Your task to perform on an android device: Add logitech g903 to the cart on ebay.com, then select checkout. Image 0: 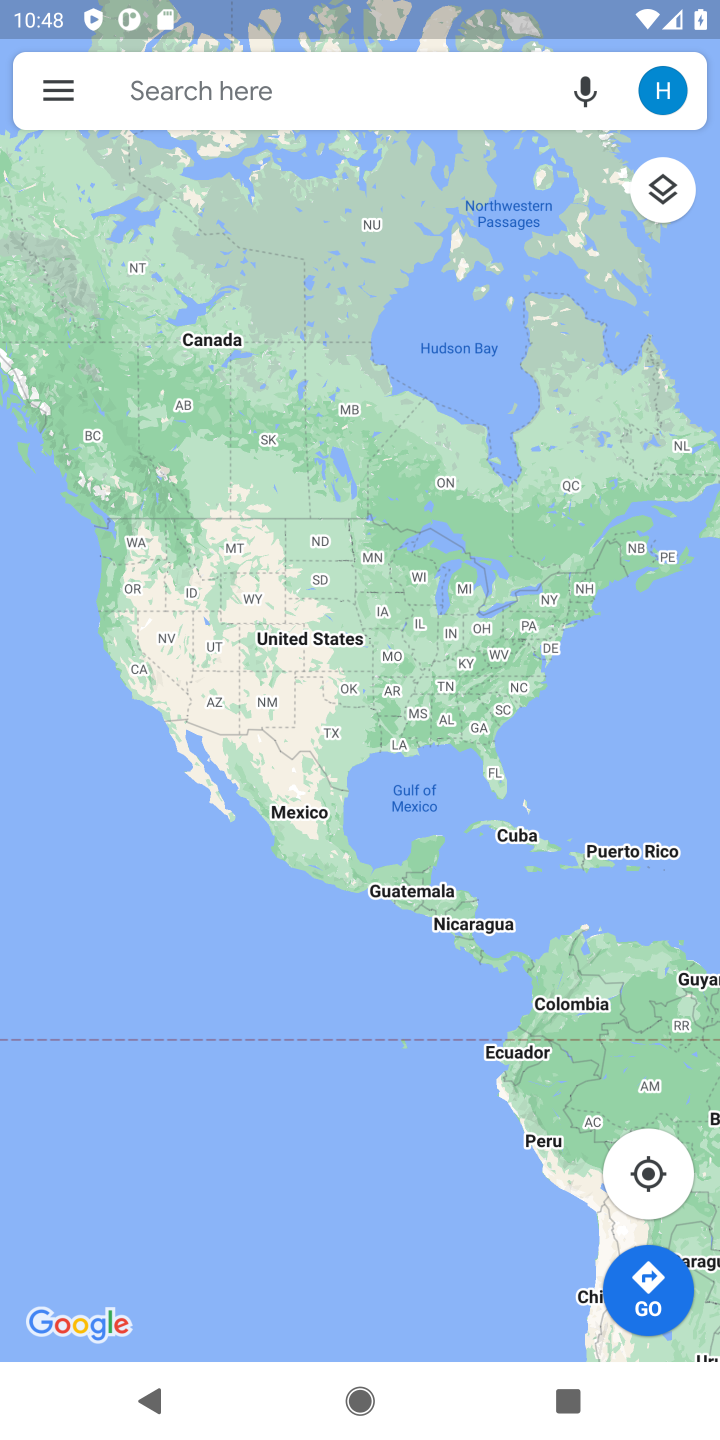
Step 0: press home button
Your task to perform on an android device: Add logitech g903 to the cart on ebay.com, then select checkout. Image 1: 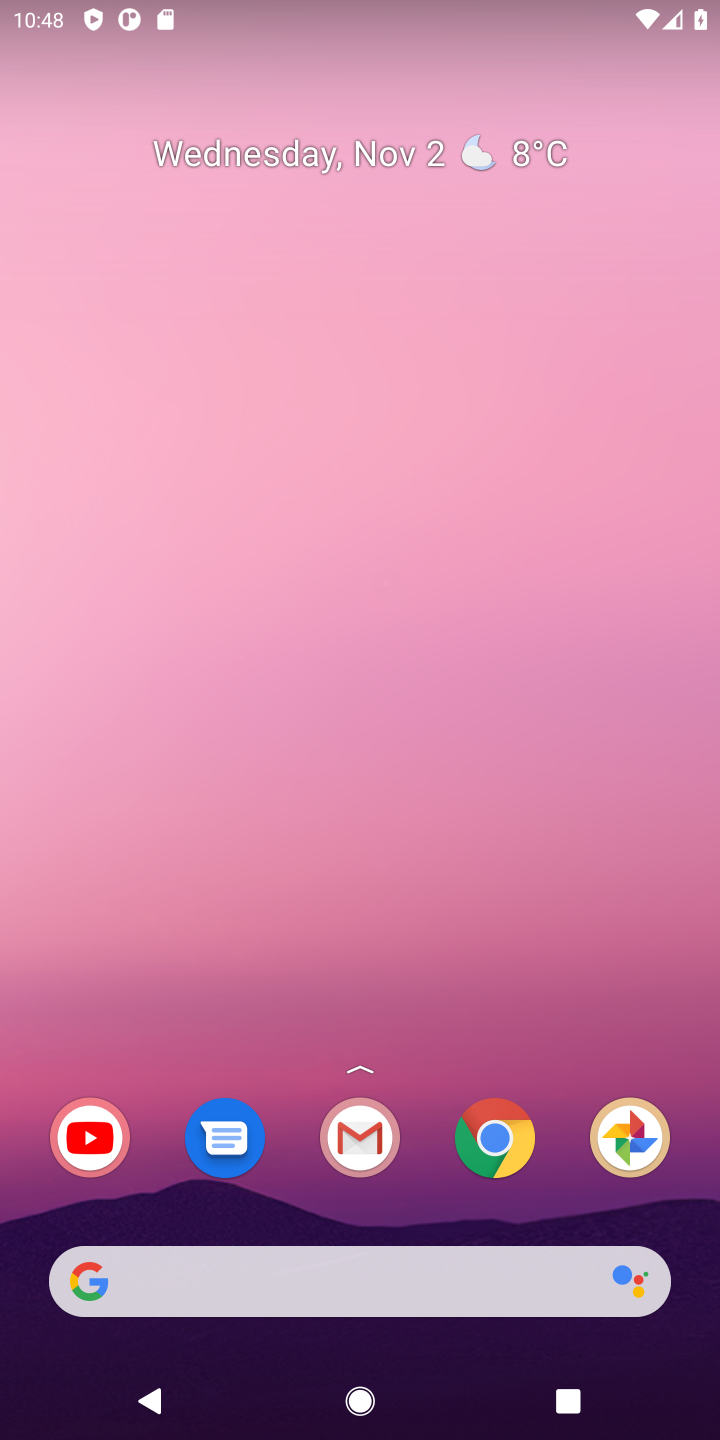
Step 1: click (497, 1153)
Your task to perform on an android device: Add logitech g903 to the cart on ebay.com, then select checkout. Image 2: 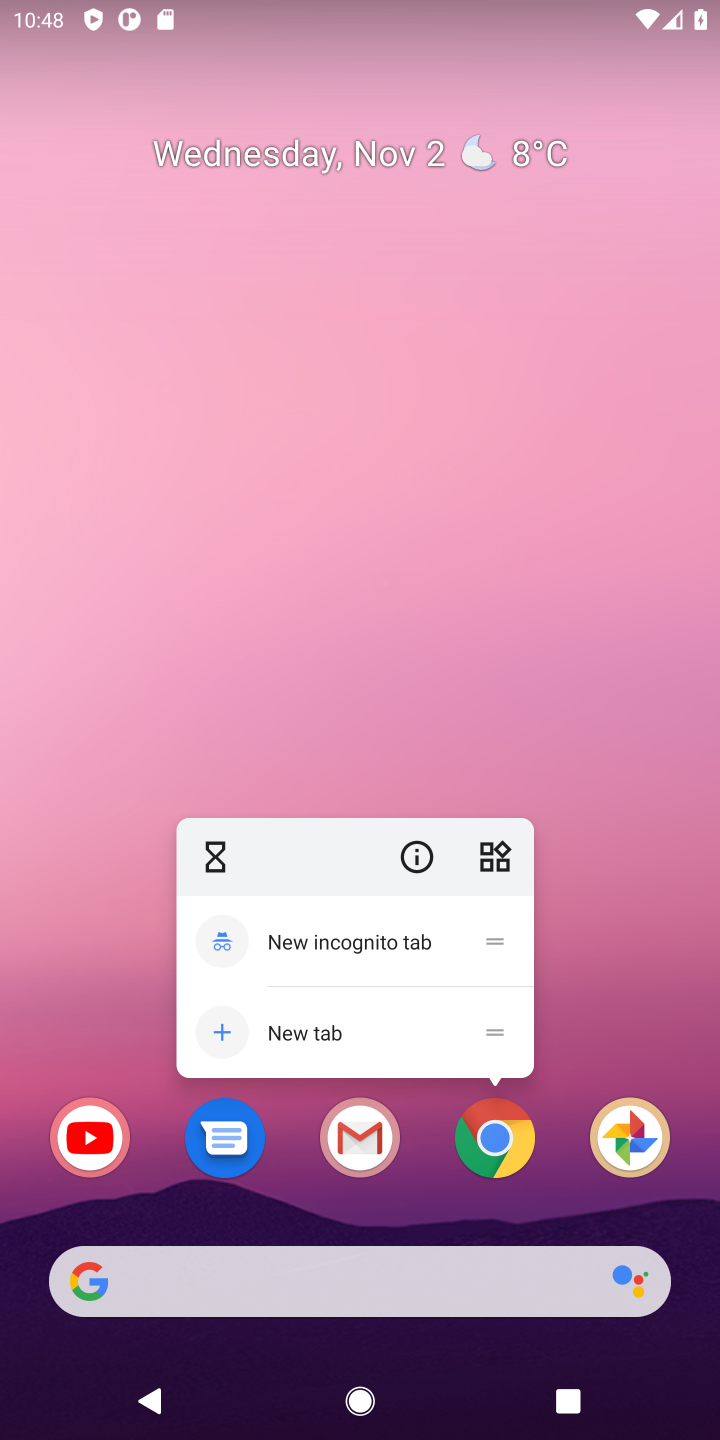
Step 2: click (510, 1133)
Your task to perform on an android device: Add logitech g903 to the cart on ebay.com, then select checkout. Image 3: 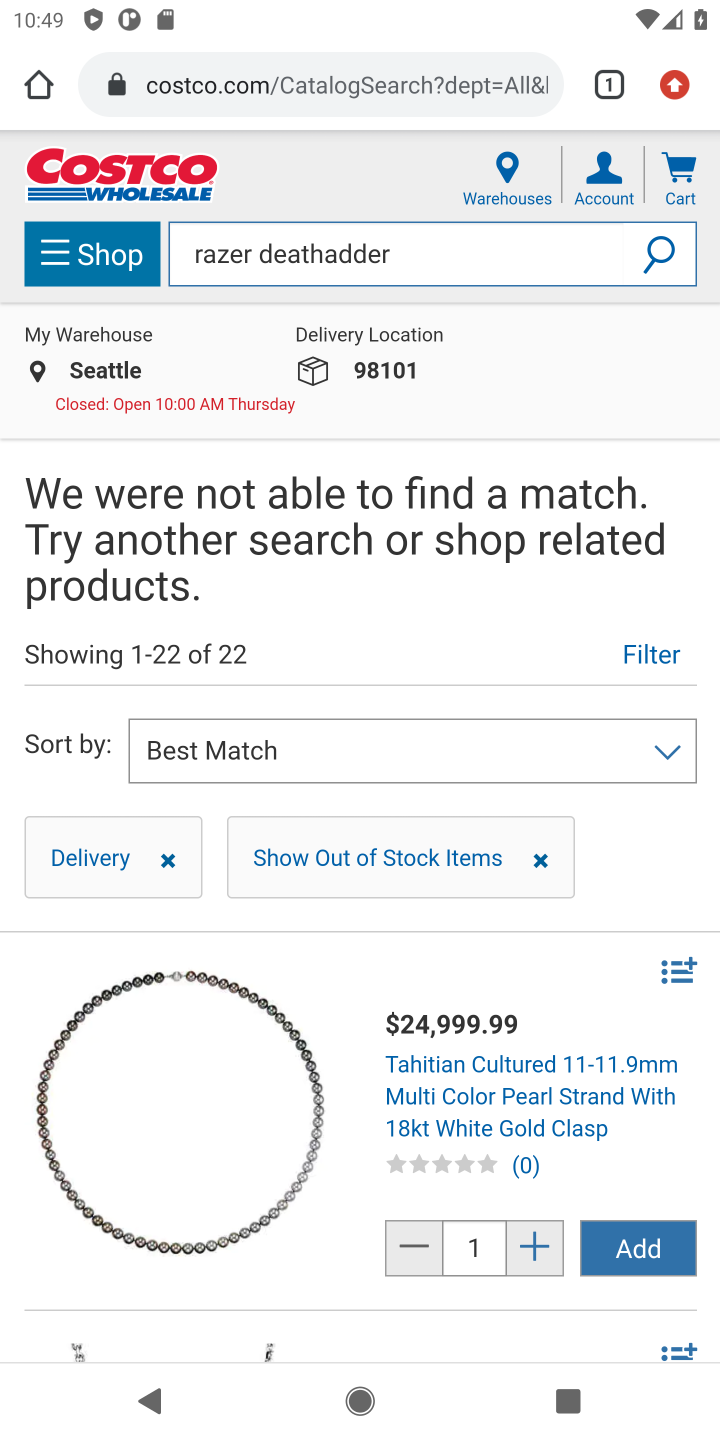
Step 3: click (307, 92)
Your task to perform on an android device: Add logitech g903 to the cart on ebay.com, then select checkout. Image 4: 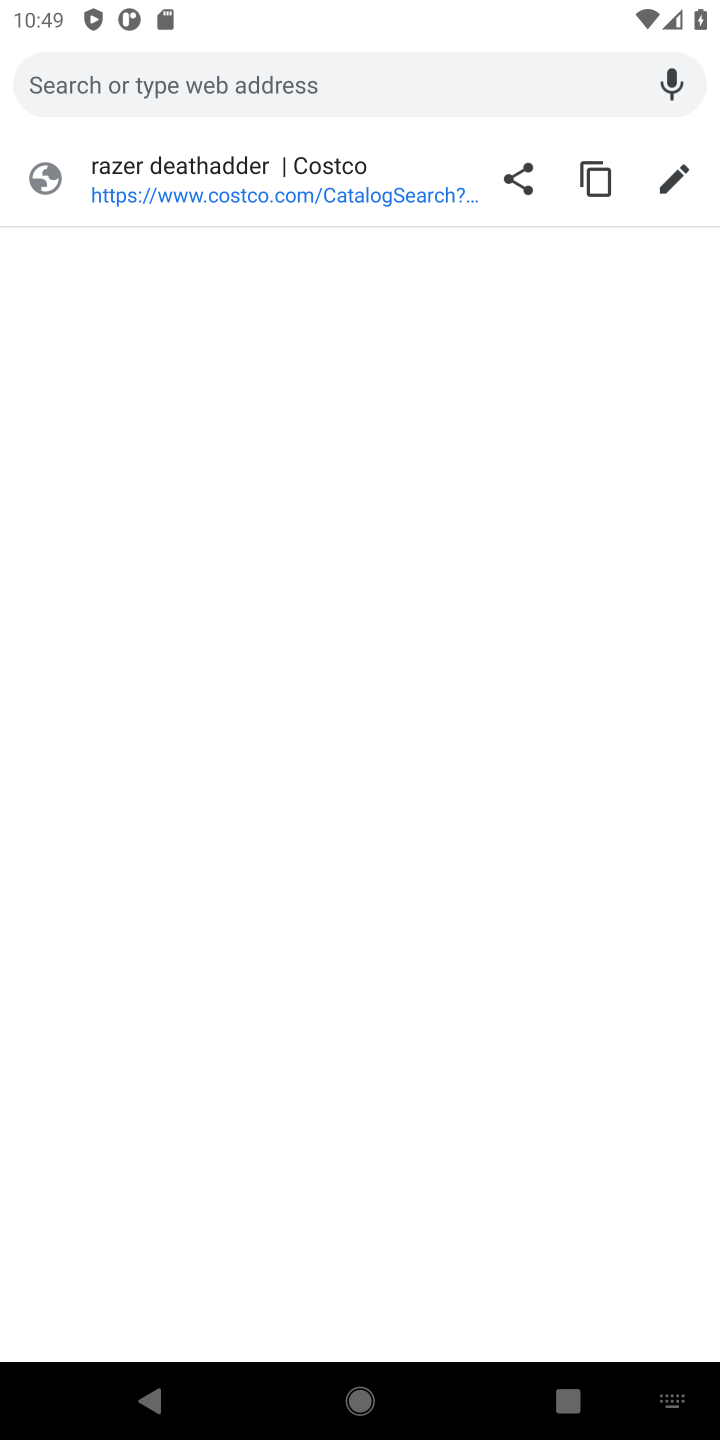
Step 4: type "ebay"
Your task to perform on an android device: Add logitech g903 to the cart on ebay.com, then select checkout. Image 5: 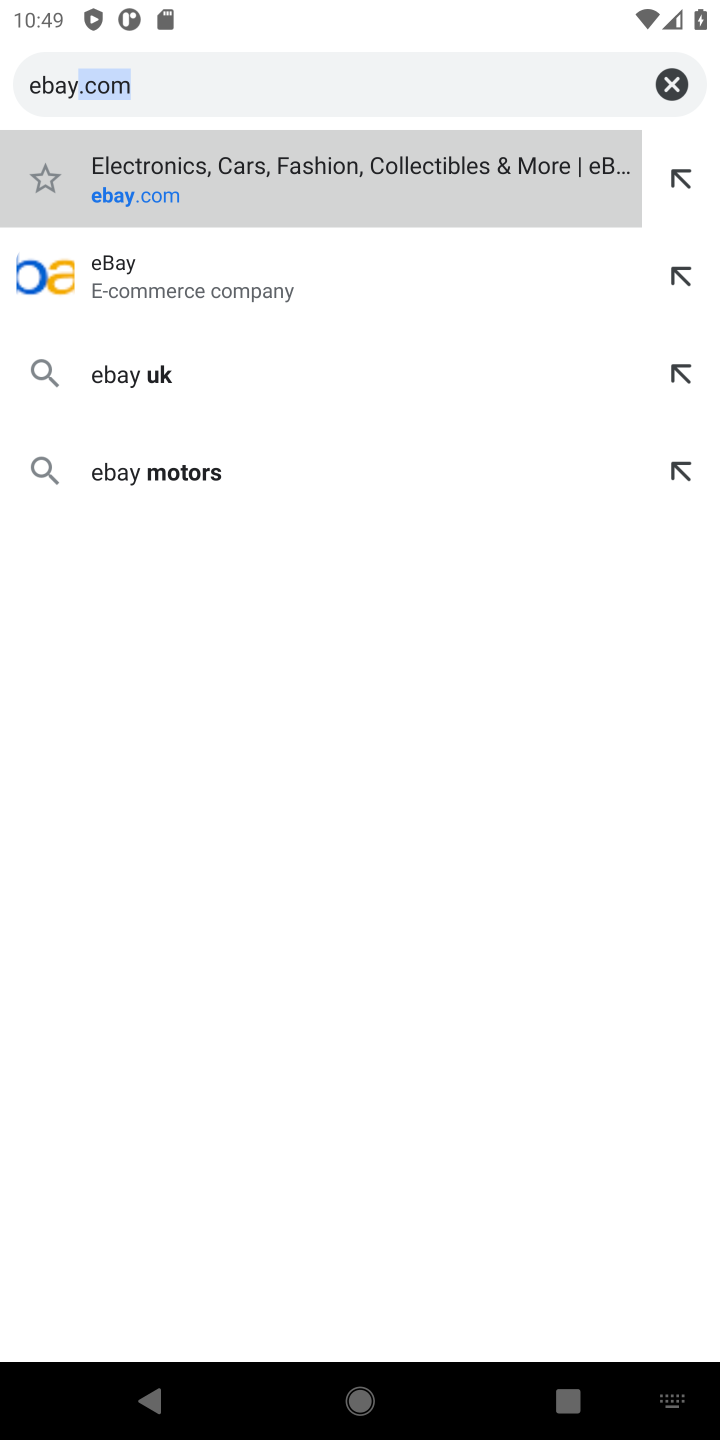
Step 5: click (92, 307)
Your task to perform on an android device: Add logitech g903 to the cart on ebay.com, then select checkout. Image 6: 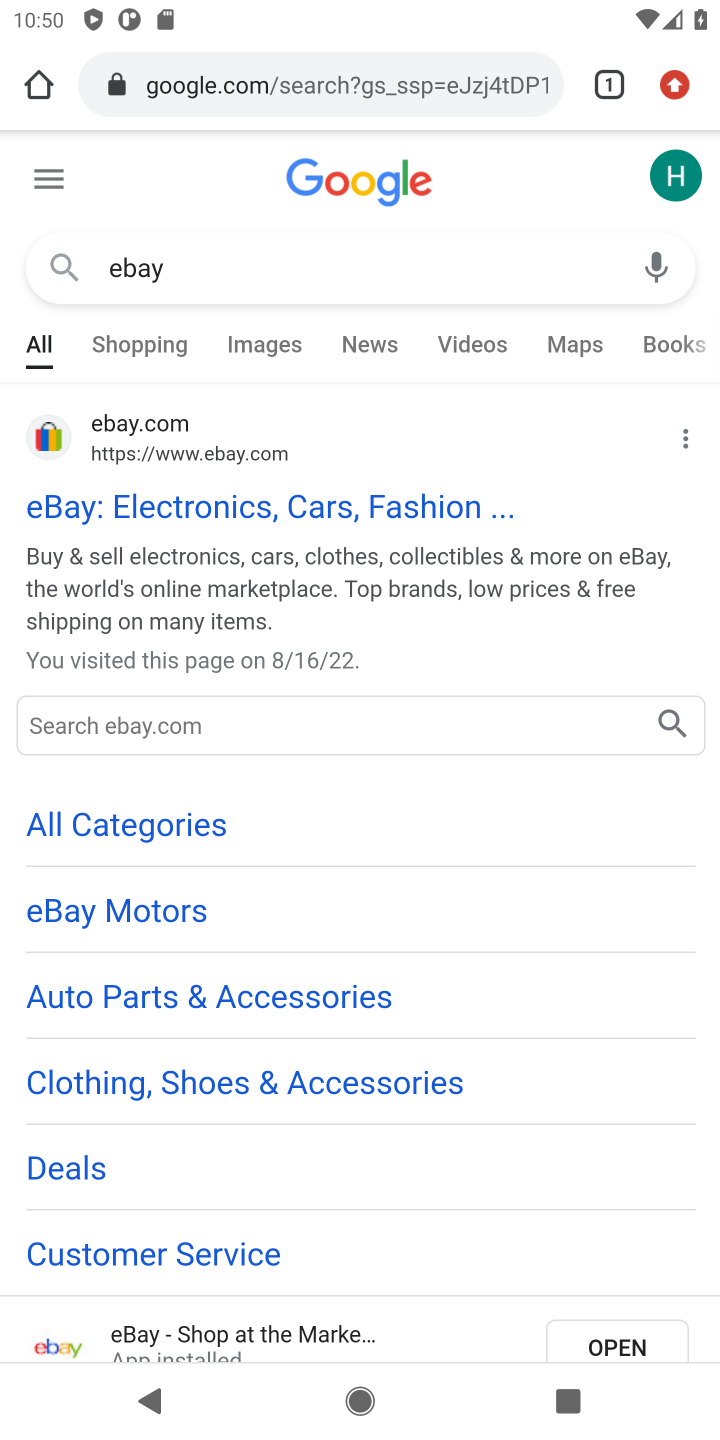
Step 6: click (159, 511)
Your task to perform on an android device: Add logitech g903 to the cart on ebay.com, then select checkout. Image 7: 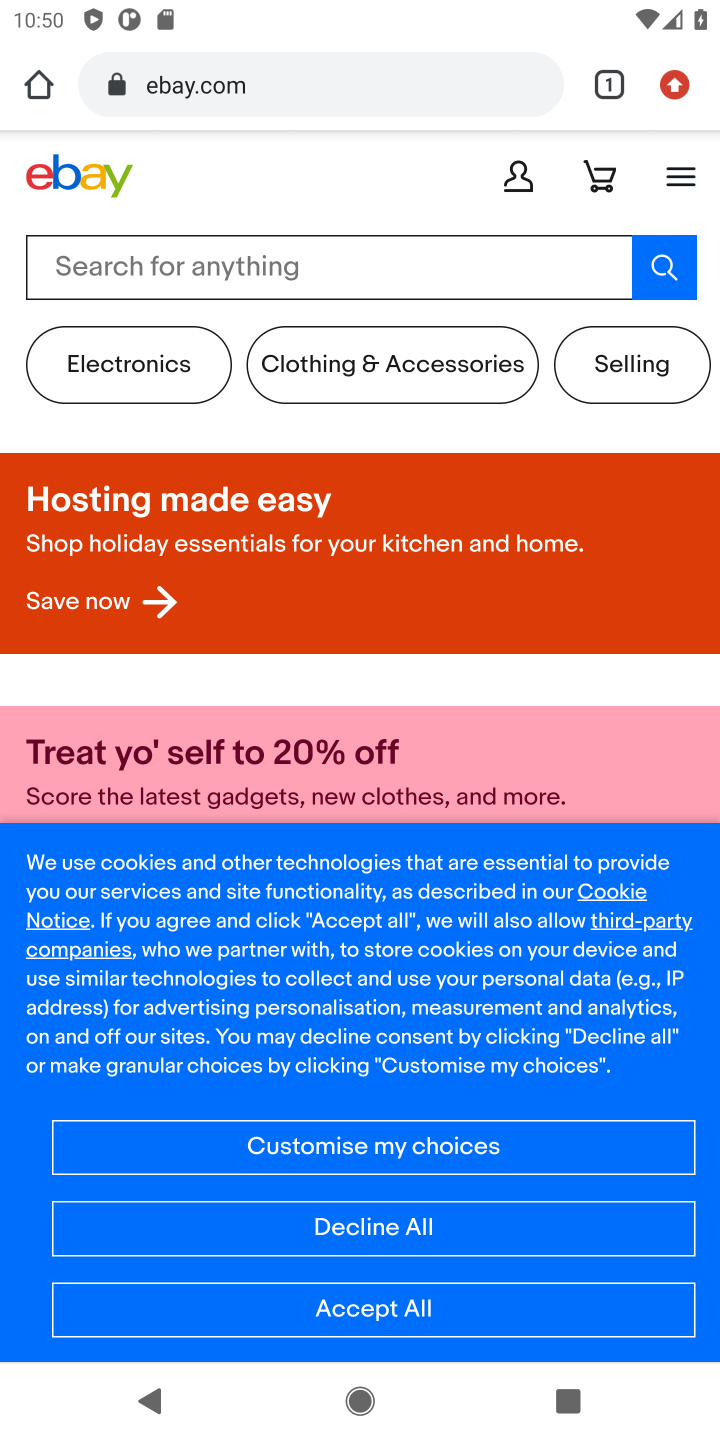
Step 7: click (157, 262)
Your task to perform on an android device: Add logitech g903 to the cart on ebay.com, then select checkout. Image 8: 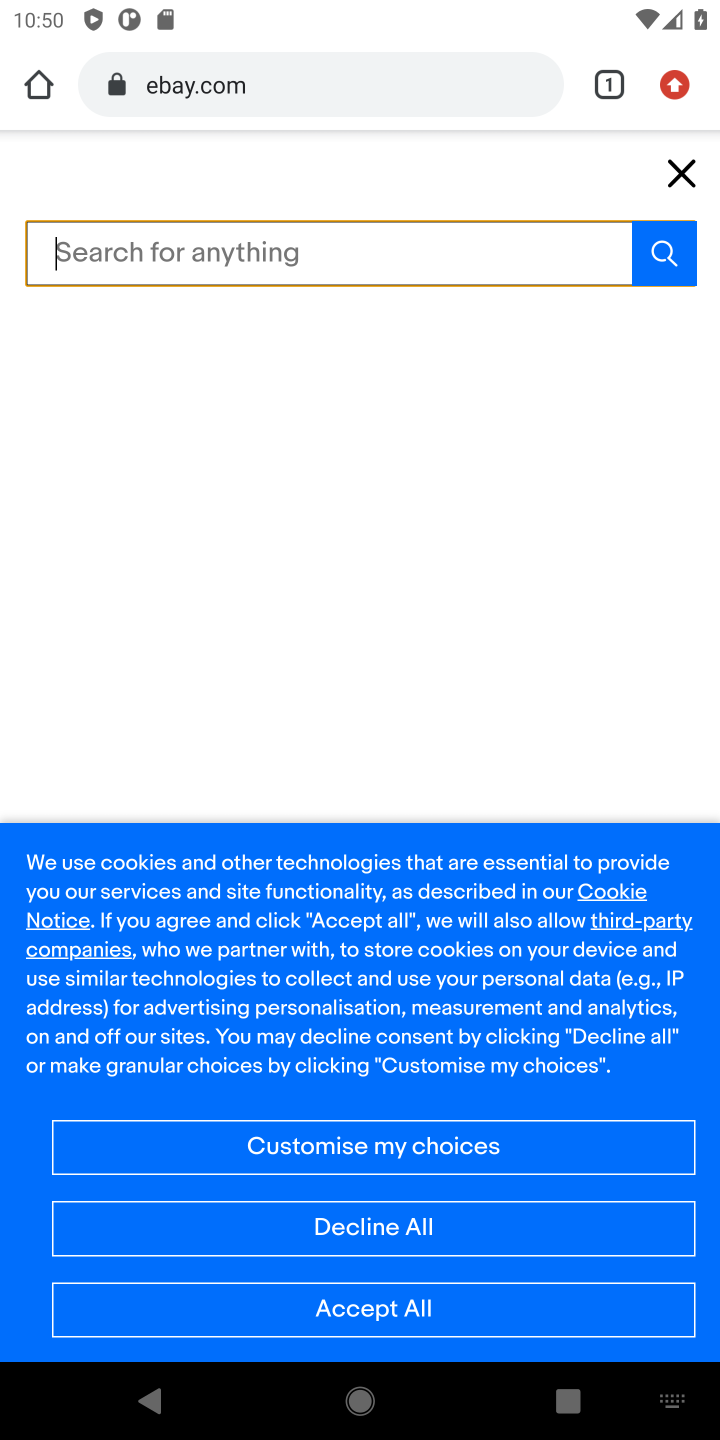
Step 8: click (185, 232)
Your task to perform on an android device: Add logitech g903 to the cart on ebay.com, then select checkout. Image 9: 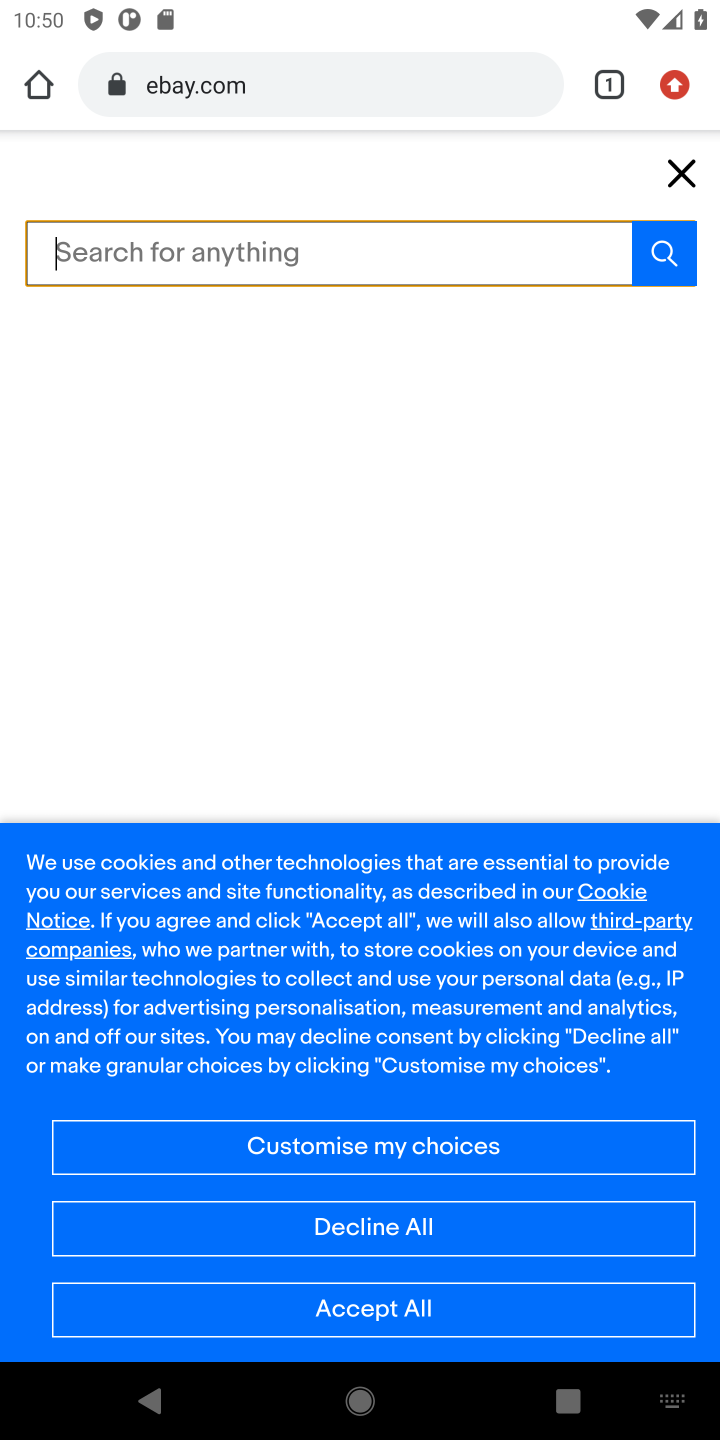
Step 9: type "logitech"
Your task to perform on an android device: Add logitech g903 to the cart on ebay.com, then select checkout. Image 10: 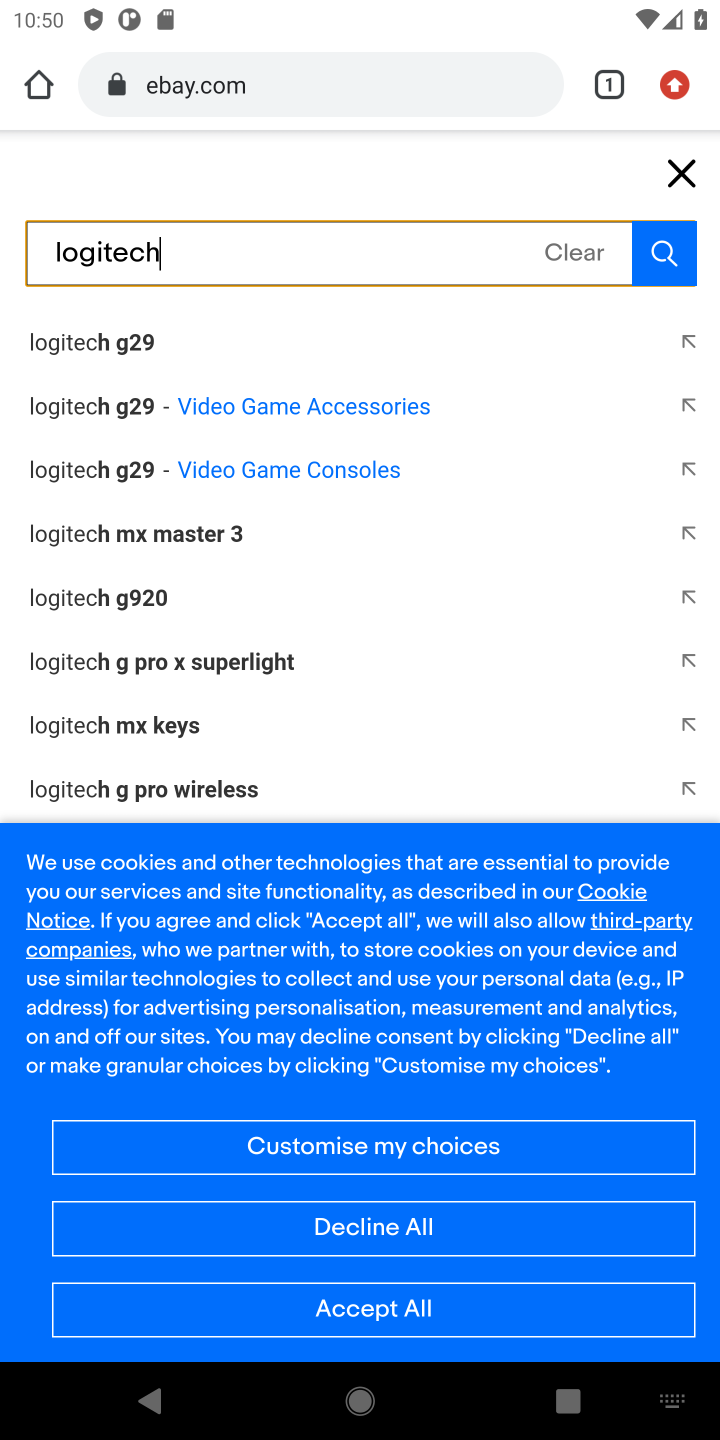
Step 10: type " g903"
Your task to perform on an android device: Add logitech g903 to the cart on ebay.com, then select checkout. Image 11: 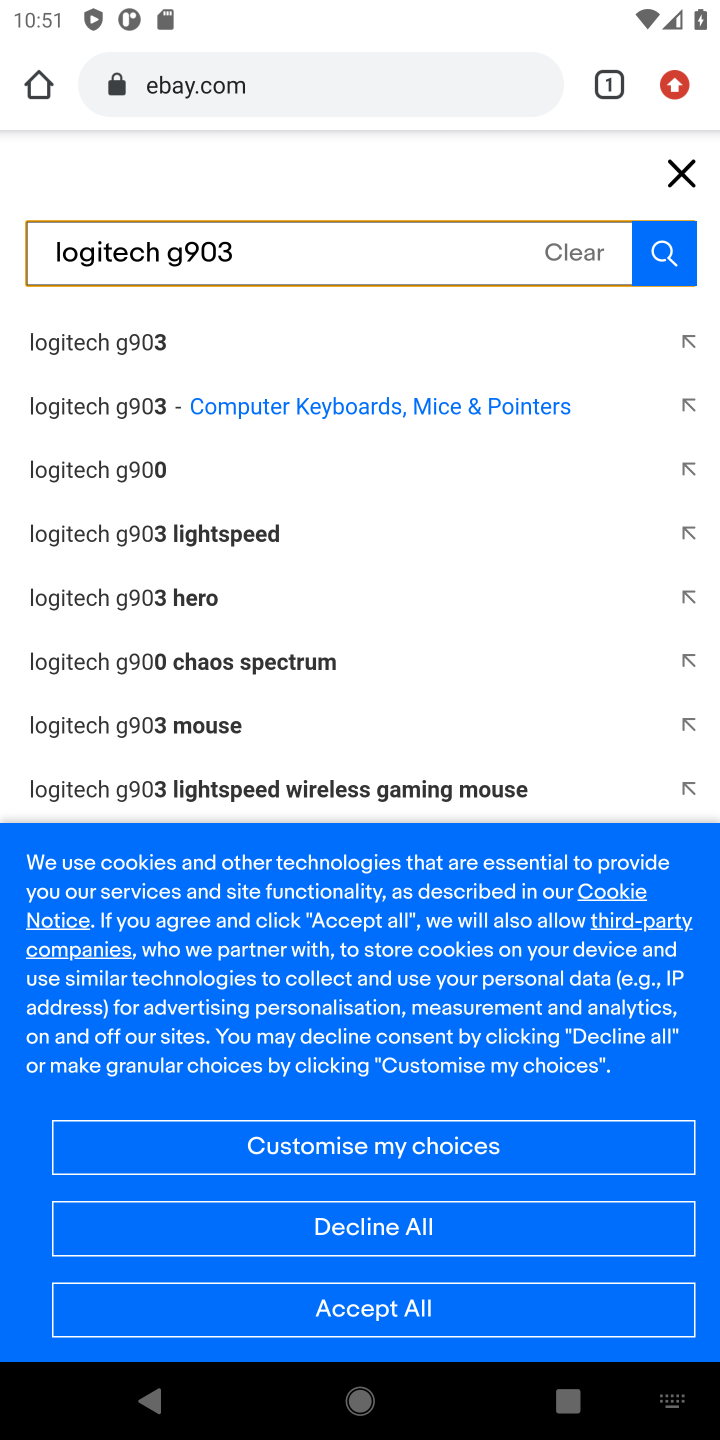
Step 11: click (66, 344)
Your task to perform on an android device: Add logitech g903 to the cart on ebay.com, then select checkout. Image 12: 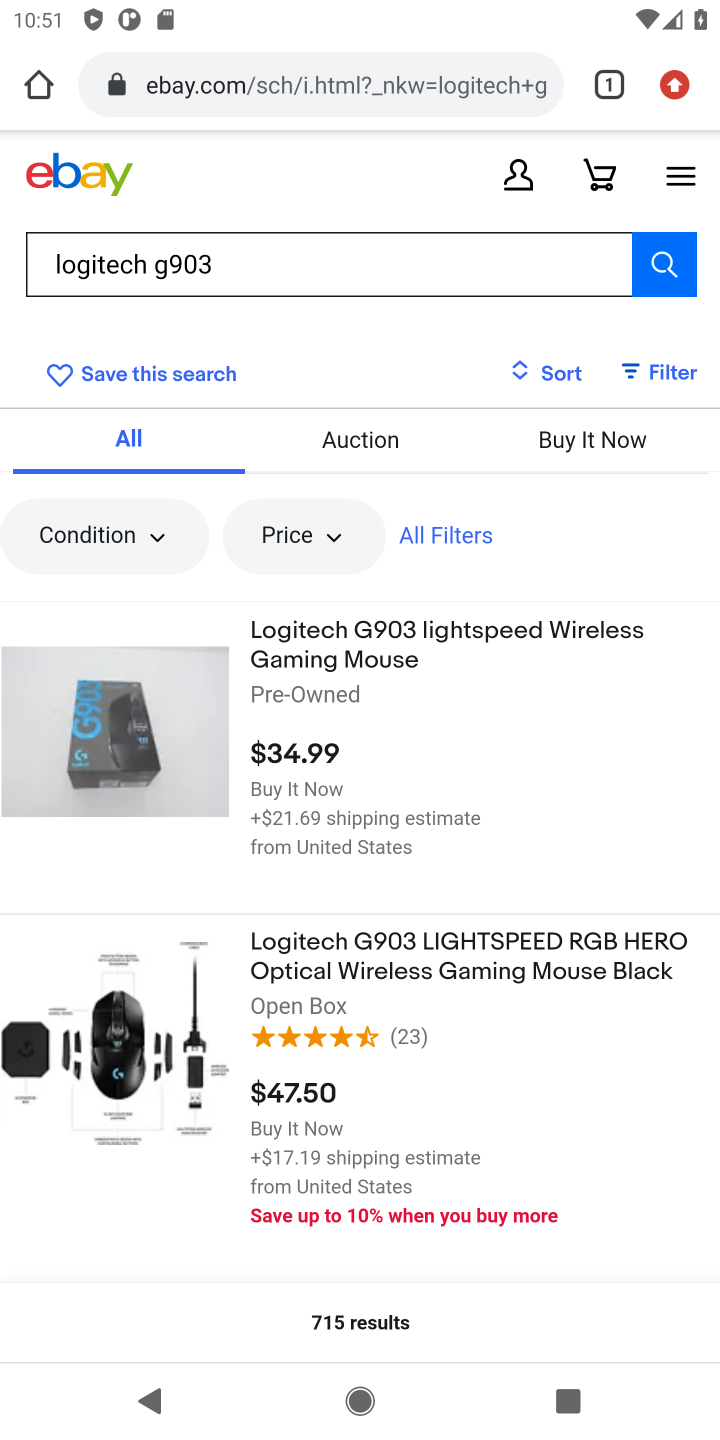
Step 12: click (381, 678)
Your task to perform on an android device: Add logitech g903 to the cart on ebay.com, then select checkout. Image 13: 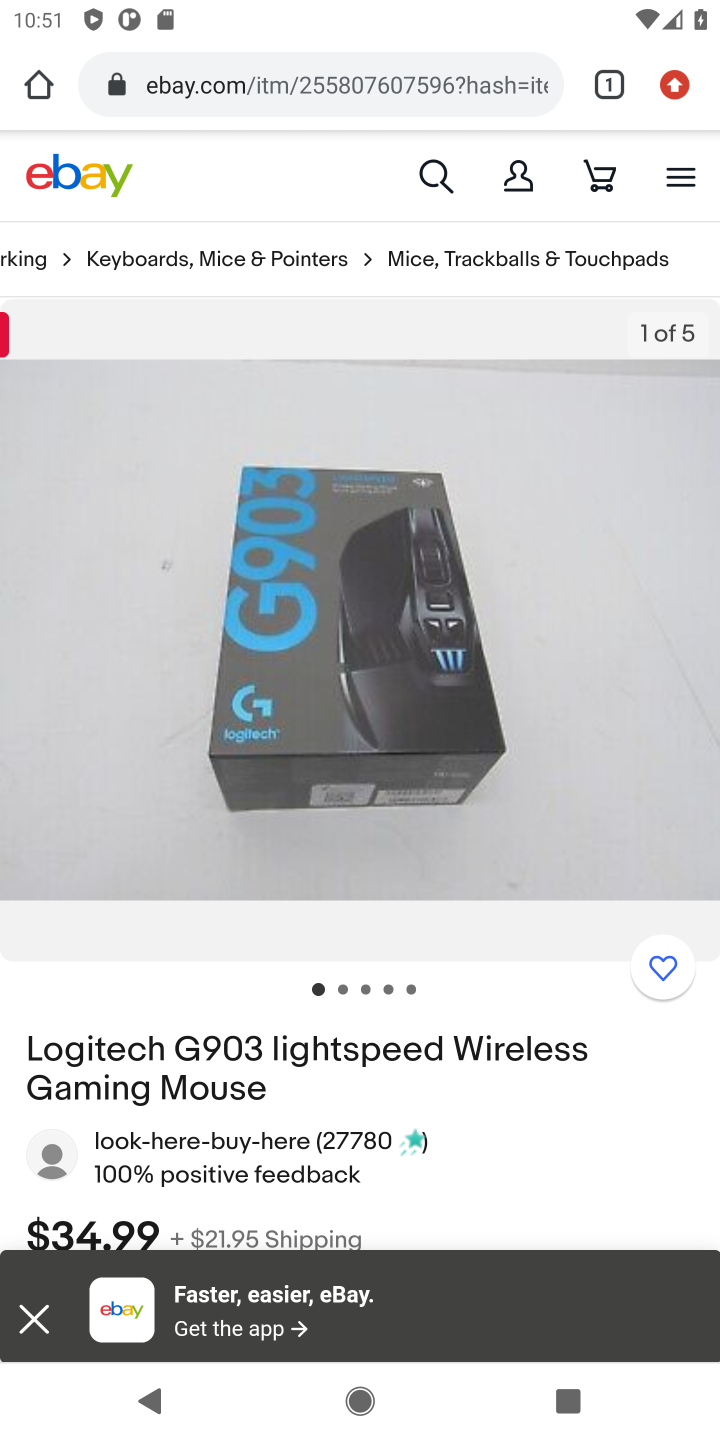
Step 13: drag from (446, 1182) to (485, 221)
Your task to perform on an android device: Add logitech g903 to the cart on ebay.com, then select checkout. Image 14: 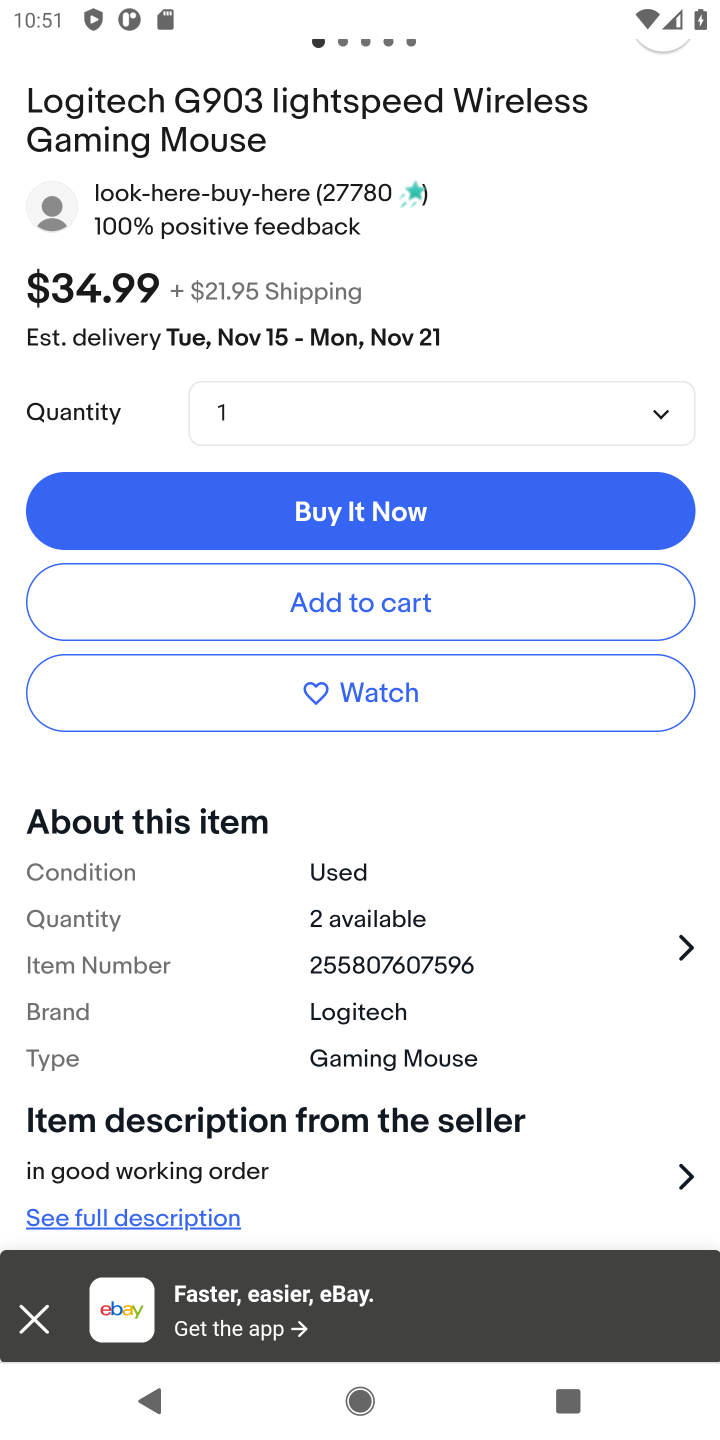
Step 14: click (339, 618)
Your task to perform on an android device: Add logitech g903 to the cart on ebay.com, then select checkout. Image 15: 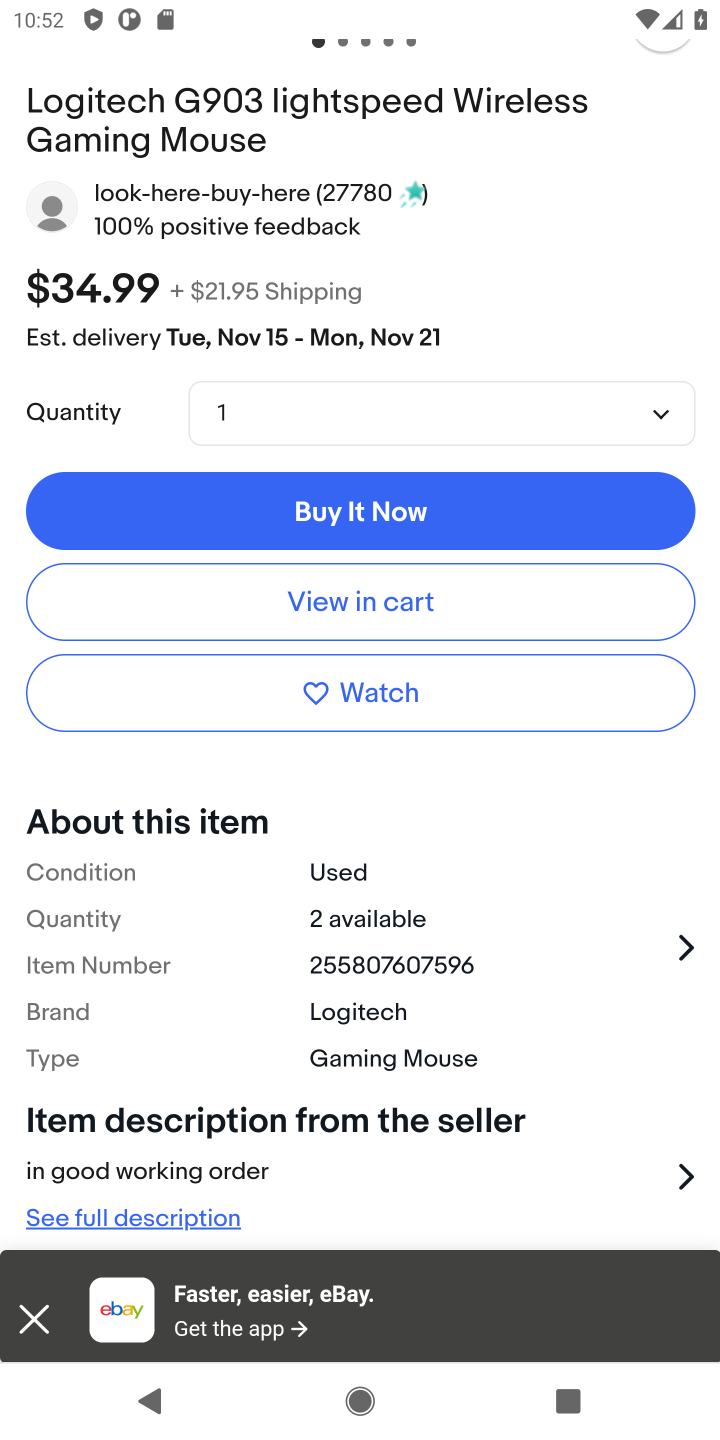
Step 15: click (362, 617)
Your task to perform on an android device: Add logitech g903 to the cart on ebay.com, then select checkout. Image 16: 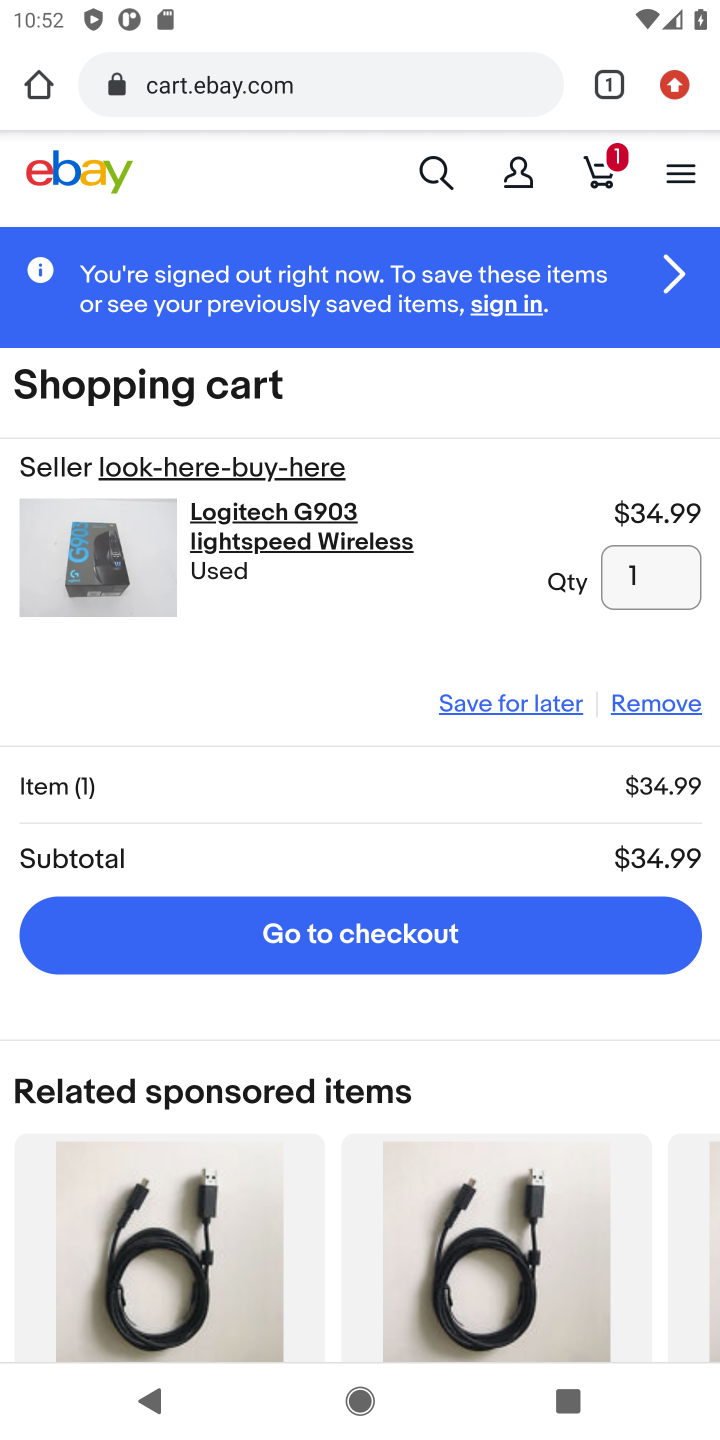
Step 16: click (215, 949)
Your task to perform on an android device: Add logitech g903 to the cart on ebay.com, then select checkout. Image 17: 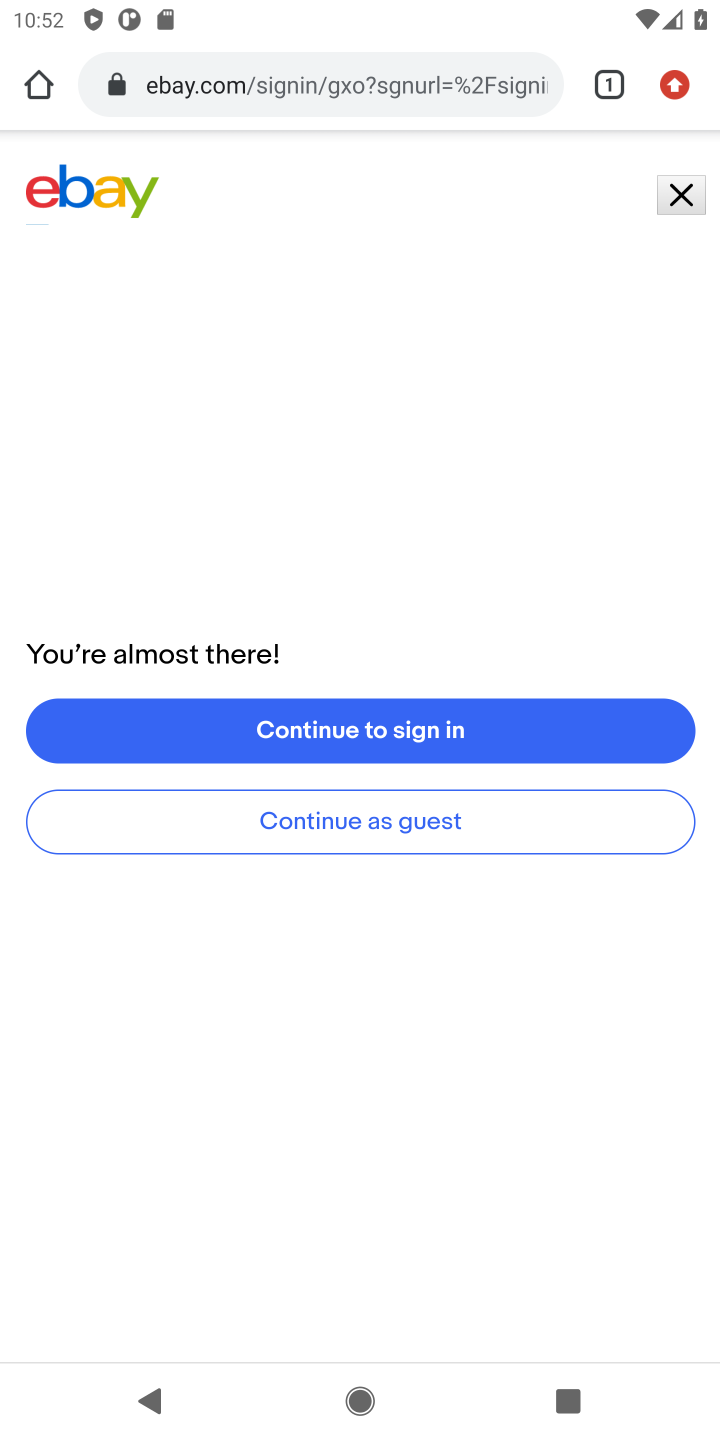
Step 17: task complete